Your task to perform on an android device: uninstall "Microsoft Outlook" Image 0: 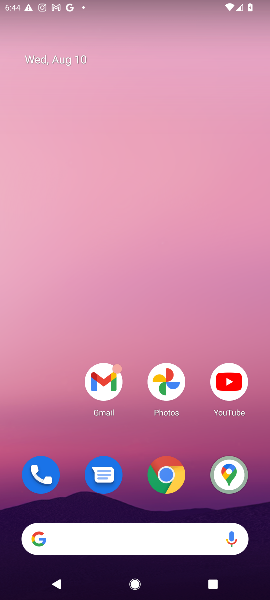
Step 0: drag from (119, 536) to (134, 194)
Your task to perform on an android device: uninstall "Microsoft Outlook" Image 1: 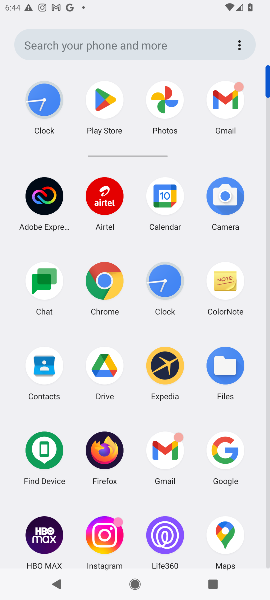
Step 1: click (97, 94)
Your task to perform on an android device: uninstall "Microsoft Outlook" Image 2: 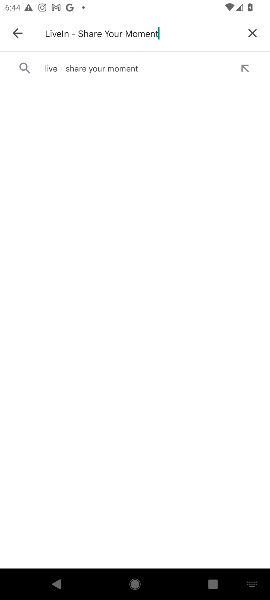
Step 2: click (247, 33)
Your task to perform on an android device: uninstall "Microsoft Outlook" Image 3: 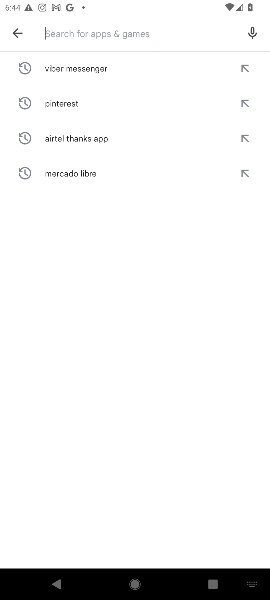
Step 3: type "Microsoft Outlook"
Your task to perform on an android device: uninstall "Microsoft Outlook" Image 4: 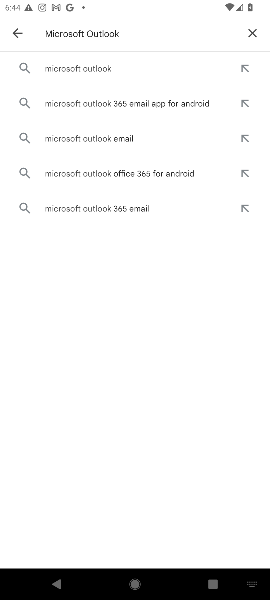
Step 4: click (110, 74)
Your task to perform on an android device: uninstall "Microsoft Outlook" Image 5: 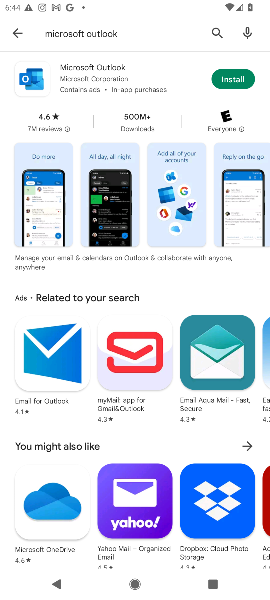
Step 5: task complete